Your task to perform on an android device: show emergency info Image 0: 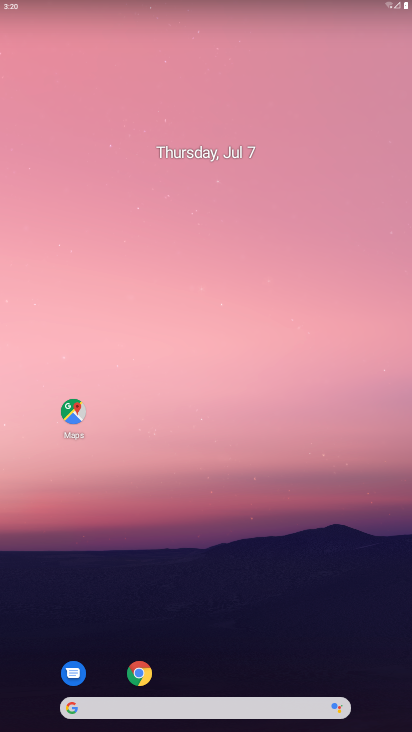
Step 0: drag from (275, 248) to (282, 166)
Your task to perform on an android device: show emergency info Image 1: 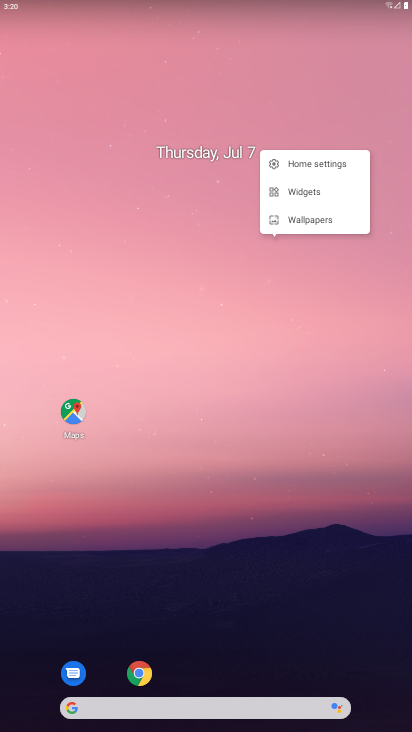
Step 1: drag from (173, 707) to (324, 36)
Your task to perform on an android device: show emergency info Image 2: 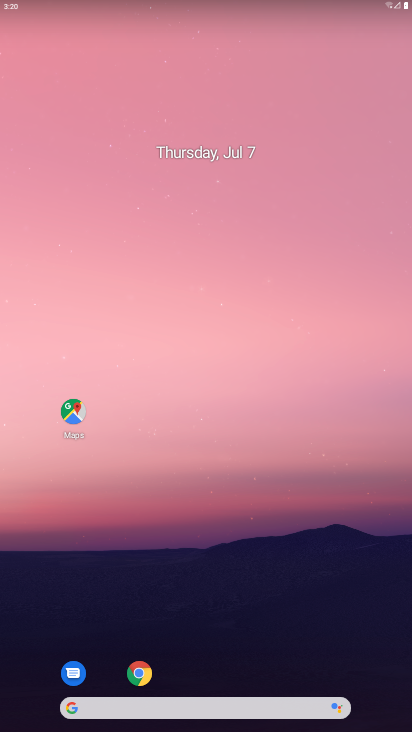
Step 2: drag from (204, 700) to (354, 38)
Your task to perform on an android device: show emergency info Image 3: 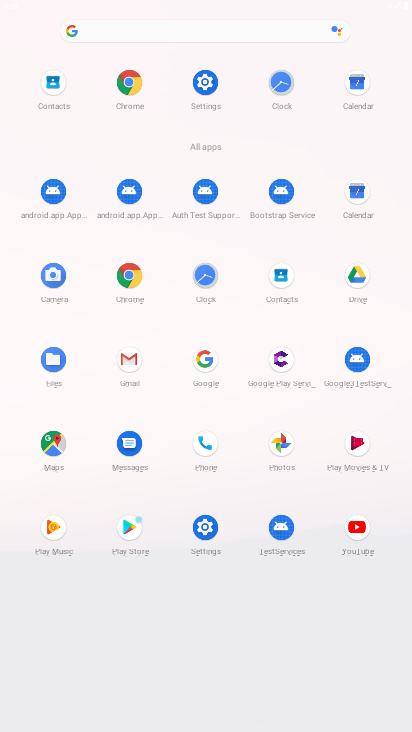
Step 3: click (201, 89)
Your task to perform on an android device: show emergency info Image 4: 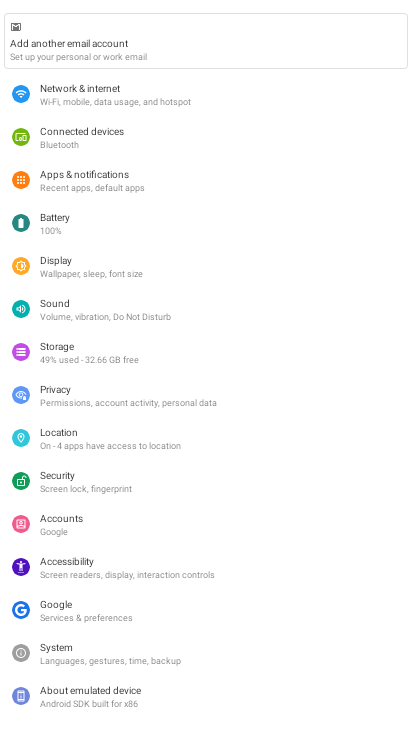
Step 4: click (97, 697)
Your task to perform on an android device: show emergency info Image 5: 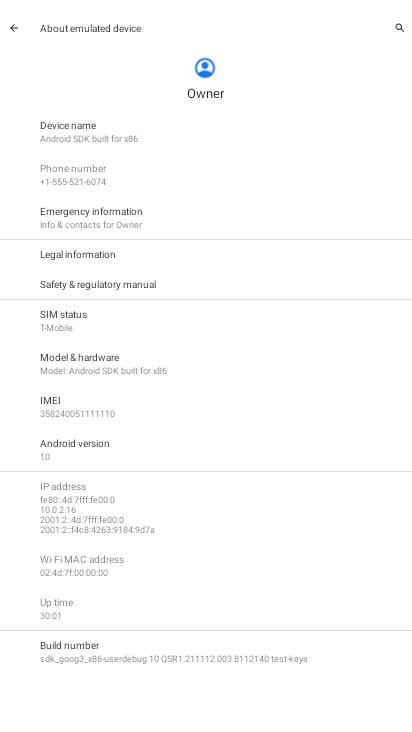
Step 5: click (106, 219)
Your task to perform on an android device: show emergency info Image 6: 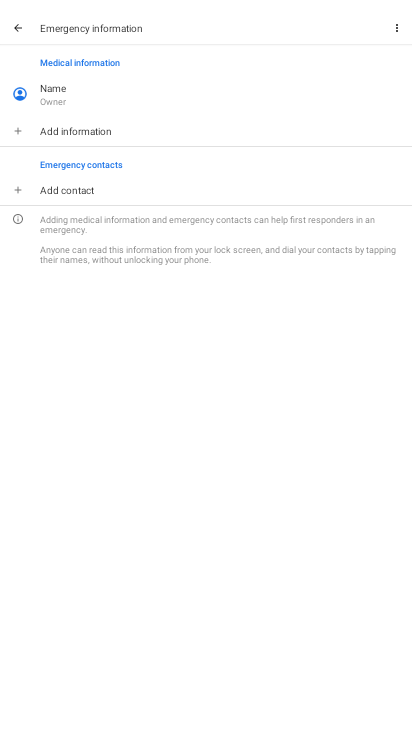
Step 6: task complete